Your task to perform on an android device: Open my contact list Image 0: 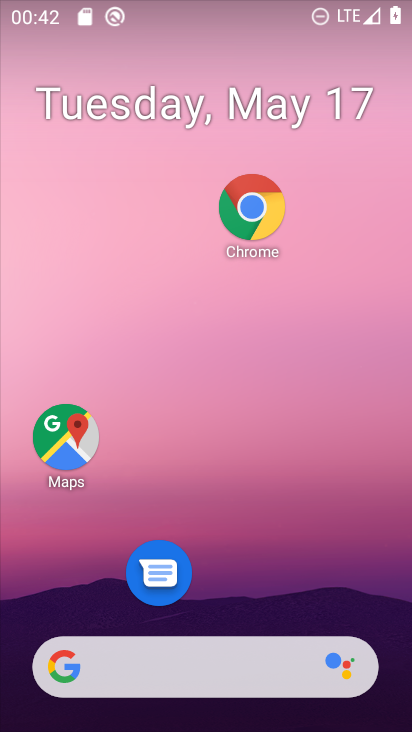
Step 0: drag from (226, 638) to (273, 13)
Your task to perform on an android device: Open my contact list Image 1: 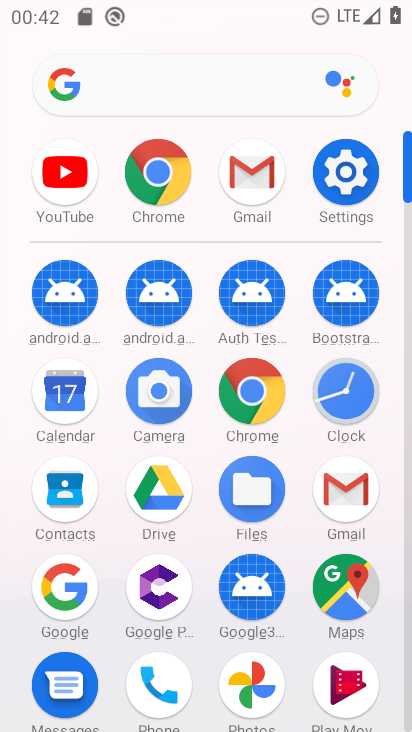
Step 1: click (59, 497)
Your task to perform on an android device: Open my contact list Image 2: 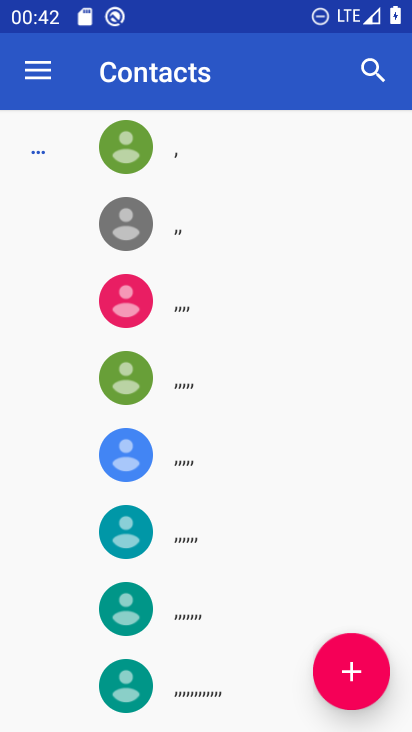
Step 2: click (340, 669)
Your task to perform on an android device: Open my contact list Image 3: 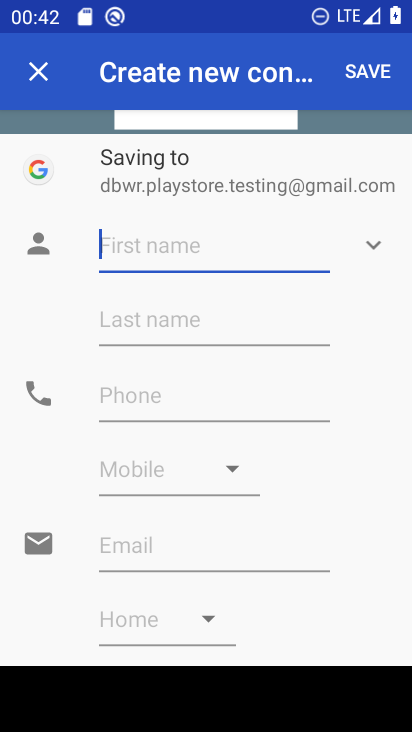
Step 3: type "kjdkjdskjdkf"
Your task to perform on an android device: Open my contact list Image 4: 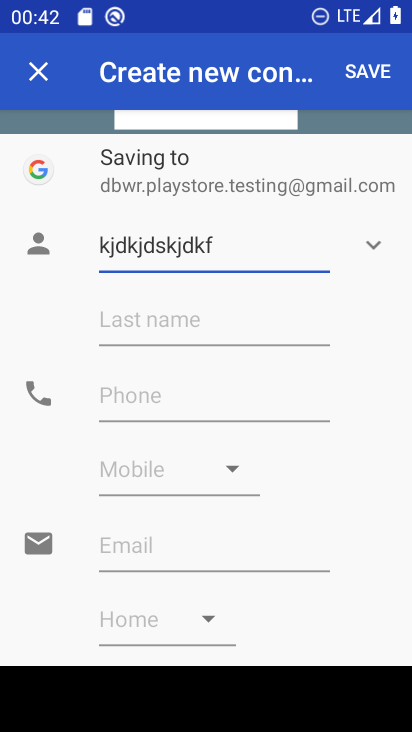
Step 4: click (233, 401)
Your task to perform on an android device: Open my contact list Image 5: 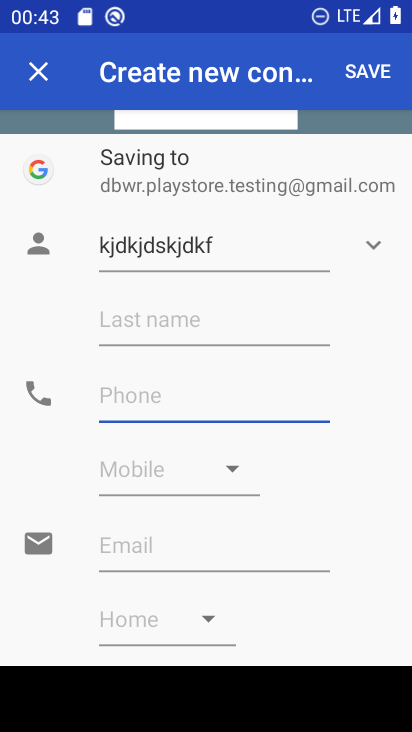
Step 5: type "9897678897"
Your task to perform on an android device: Open my contact list Image 6: 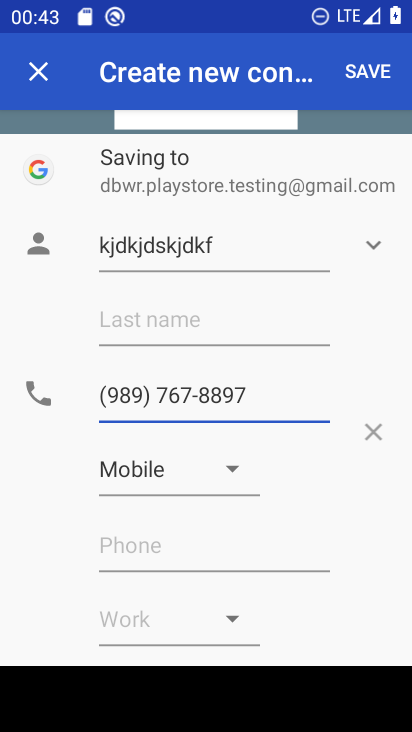
Step 6: click (368, 65)
Your task to perform on an android device: Open my contact list Image 7: 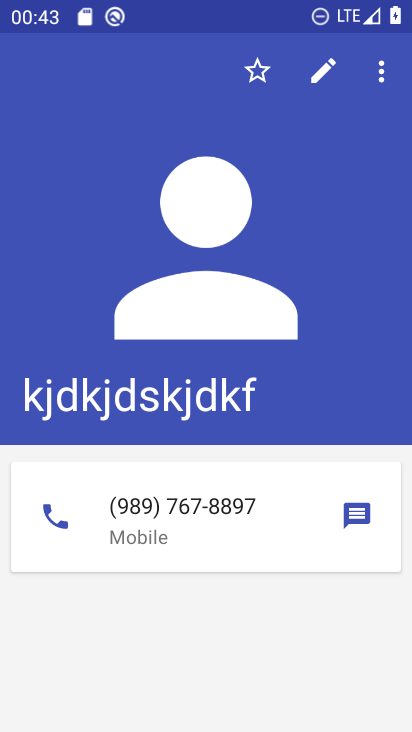
Step 7: task complete